Your task to perform on an android device: open chrome privacy settings Image 0: 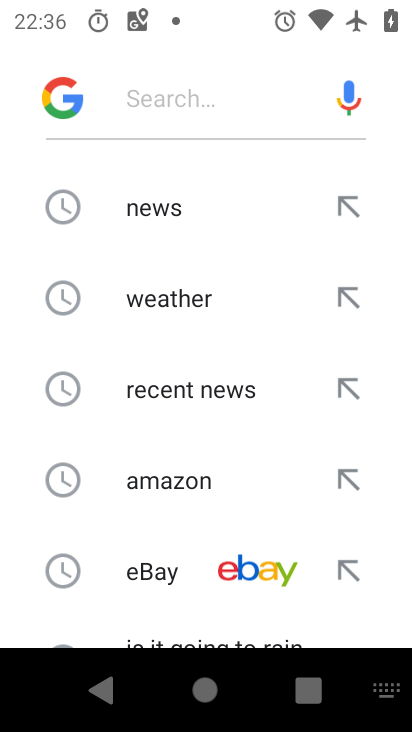
Step 0: press home button
Your task to perform on an android device: open chrome privacy settings Image 1: 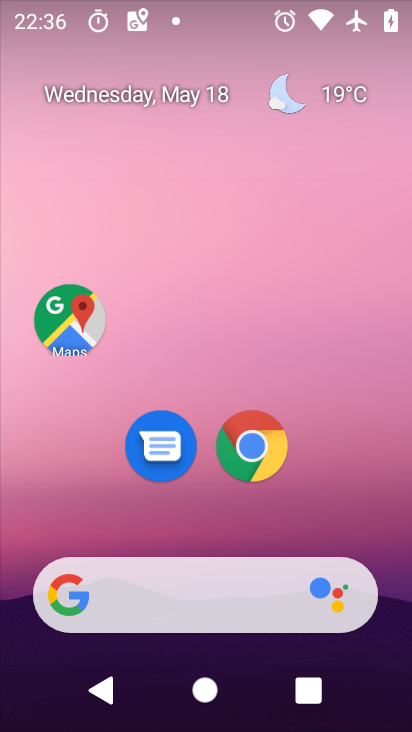
Step 1: click (256, 456)
Your task to perform on an android device: open chrome privacy settings Image 2: 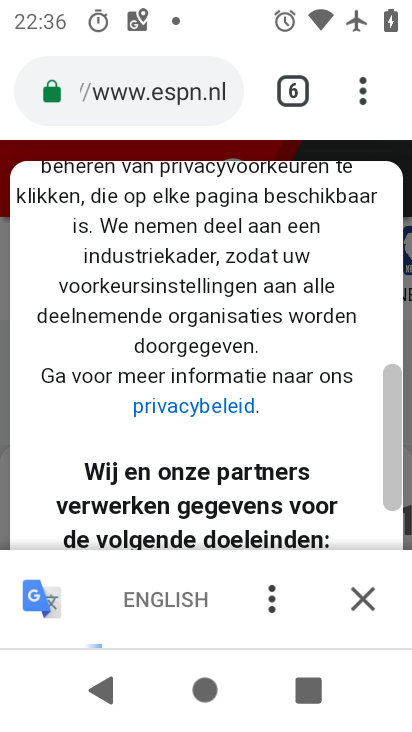
Step 2: drag from (361, 96) to (246, 453)
Your task to perform on an android device: open chrome privacy settings Image 3: 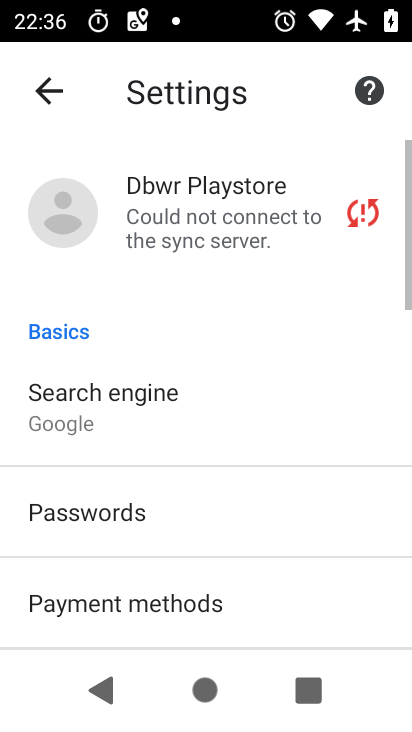
Step 3: drag from (198, 542) to (329, 132)
Your task to perform on an android device: open chrome privacy settings Image 4: 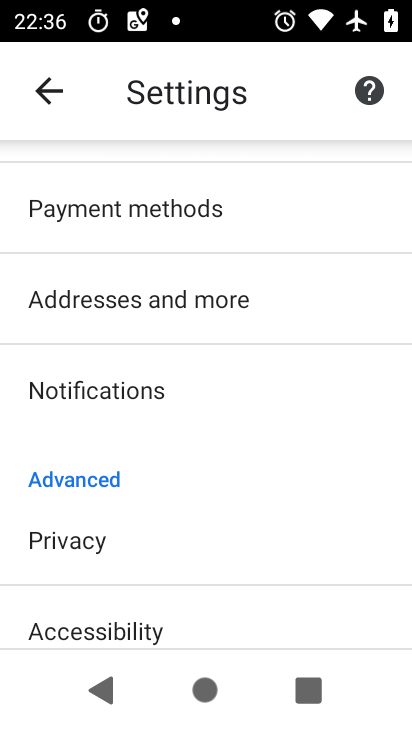
Step 4: click (94, 539)
Your task to perform on an android device: open chrome privacy settings Image 5: 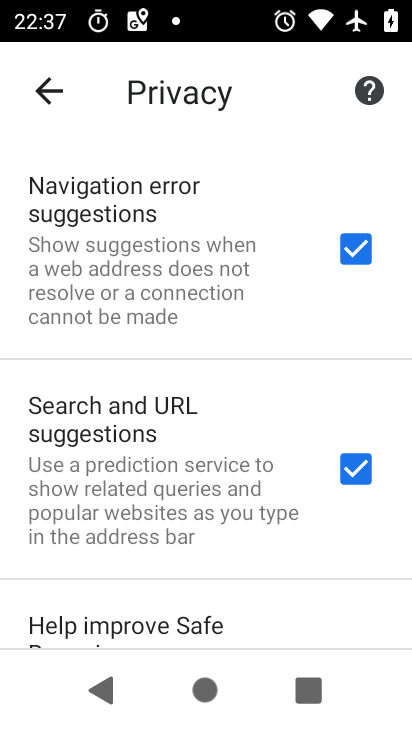
Step 5: task complete